Your task to perform on an android device: turn off sleep mode Image 0: 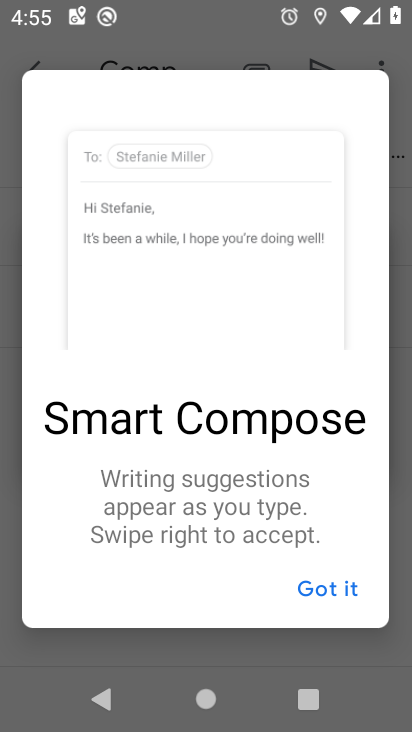
Step 0: press home button
Your task to perform on an android device: turn off sleep mode Image 1: 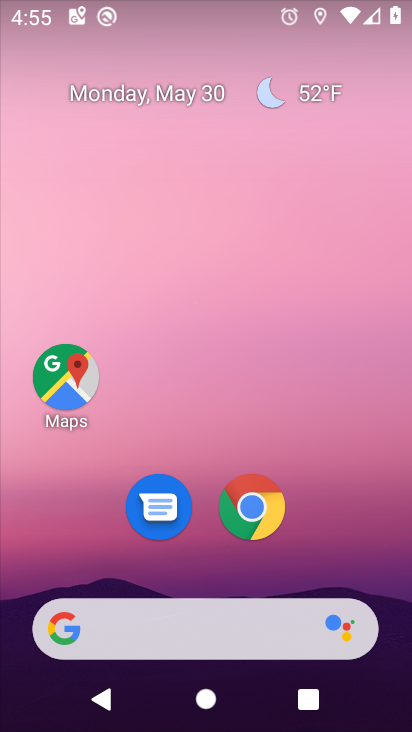
Step 1: drag from (338, 541) to (330, 121)
Your task to perform on an android device: turn off sleep mode Image 2: 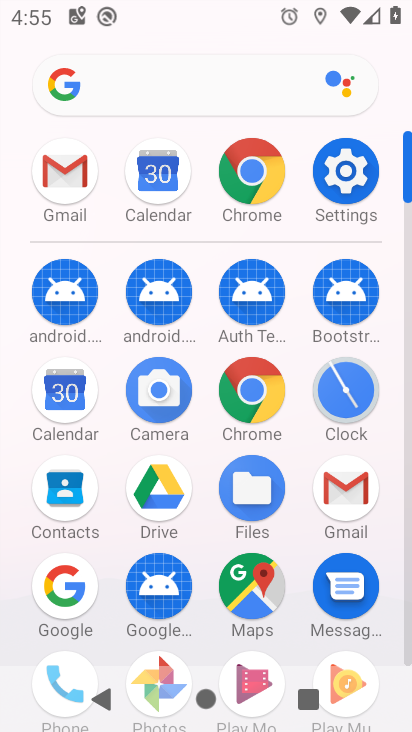
Step 2: click (321, 180)
Your task to perform on an android device: turn off sleep mode Image 3: 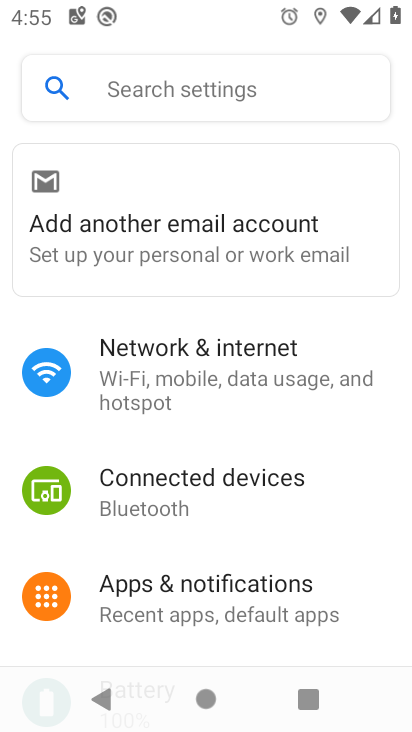
Step 3: drag from (318, 415) to (308, 64)
Your task to perform on an android device: turn off sleep mode Image 4: 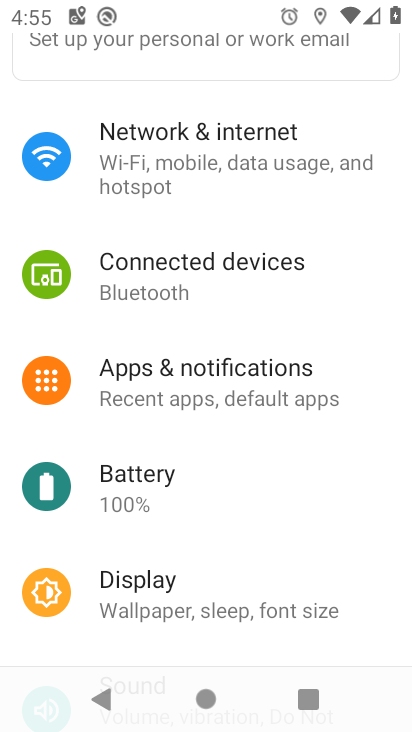
Step 4: click (286, 583)
Your task to perform on an android device: turn off sleep mode Image 5: 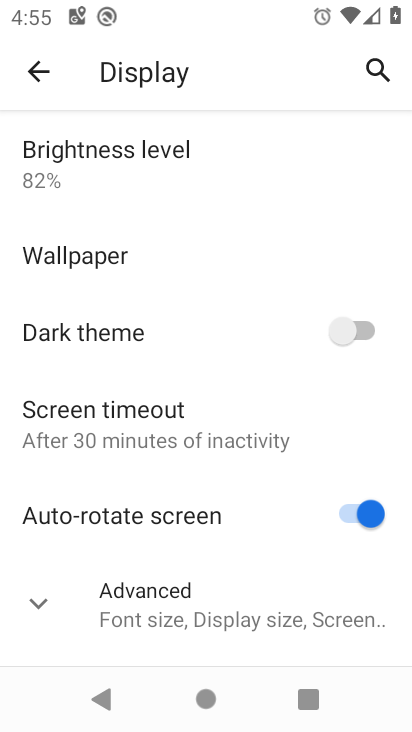
Step 5: task complete